Your task to perform on an android device: Open the Play Movies app and select the watchlist tab. Image 0: 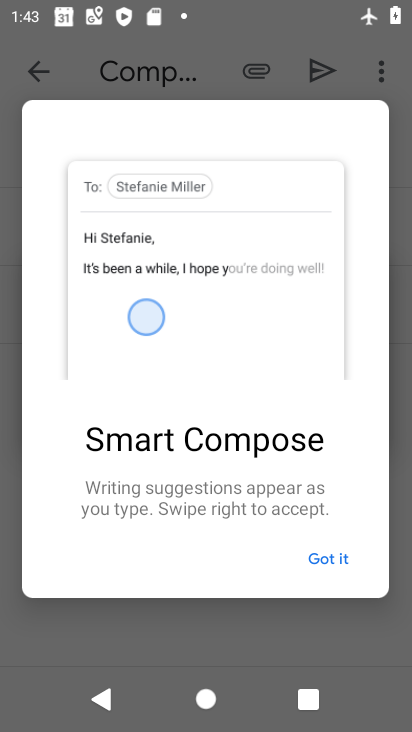
Step 0: press home button
Your task to perform on an android device: Open the Play Movies app and select the watchlist tab. Image 1: 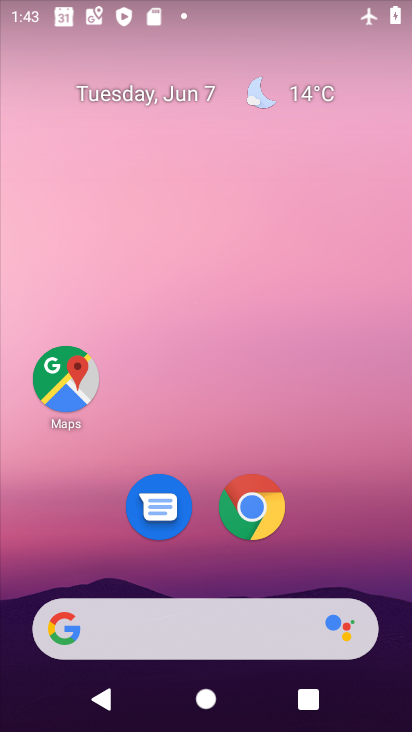
Step 1: drag from (397, 626) to (364, 198)
Your task to perform on an android device: Open the Play Movies app and select the watchlist tab. Image 2: 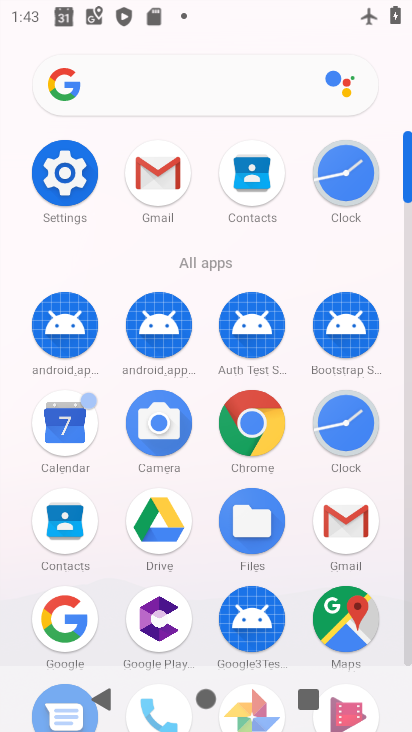
Step 2: click (402, 633)
Your task to perform on an android device: Open the Play Movies app and select the watchlist tab. Image 3: 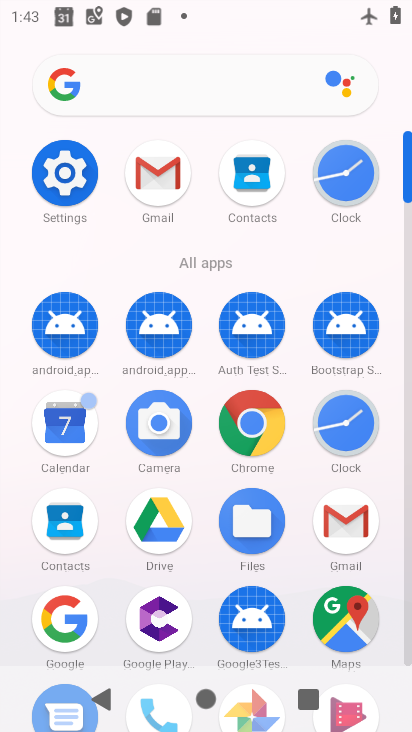
Step 3: click (406, 639)
Your task to perform on an android device: Open the Play Movies app and select the watchlist tab. Image 4: 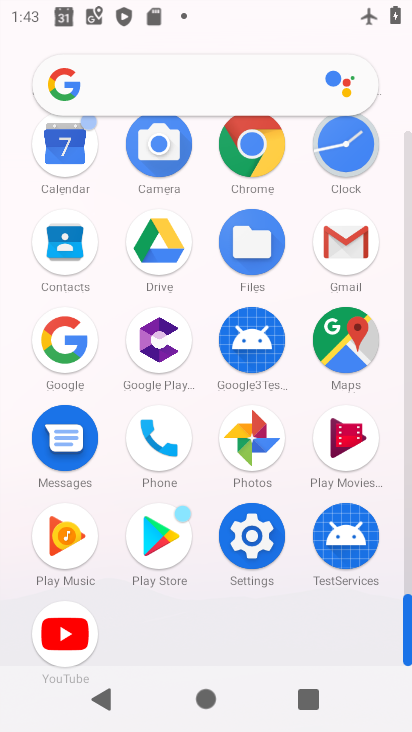
Step 4: click (346, 434)
Your task to perform on an android device: Open the Play Movies app and select the watchlist tab. Image 5: 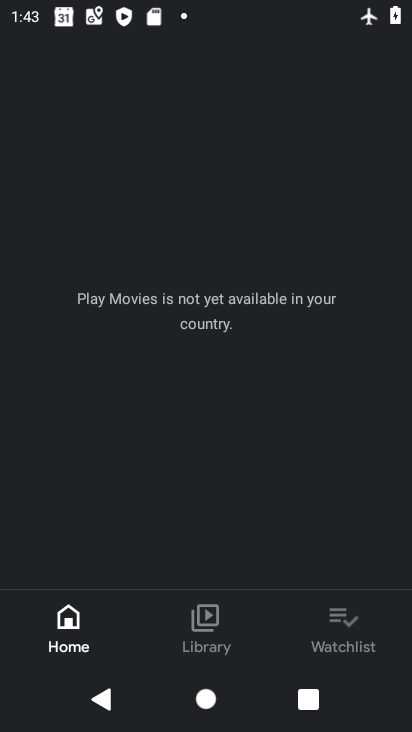
Step 5: click (345, 618)
Your task to perform on an android device: Open the Play Movies app and select the watchlist tab. Image 6: 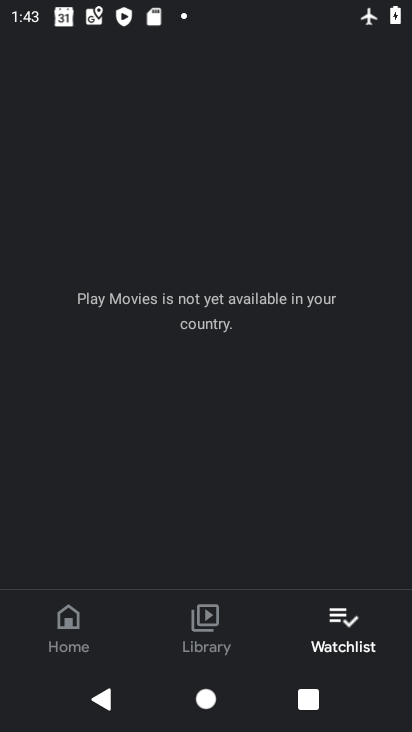
Step 6: task complete